Your task to perform on an android device: toggle pop-ups in chrome Image 0: 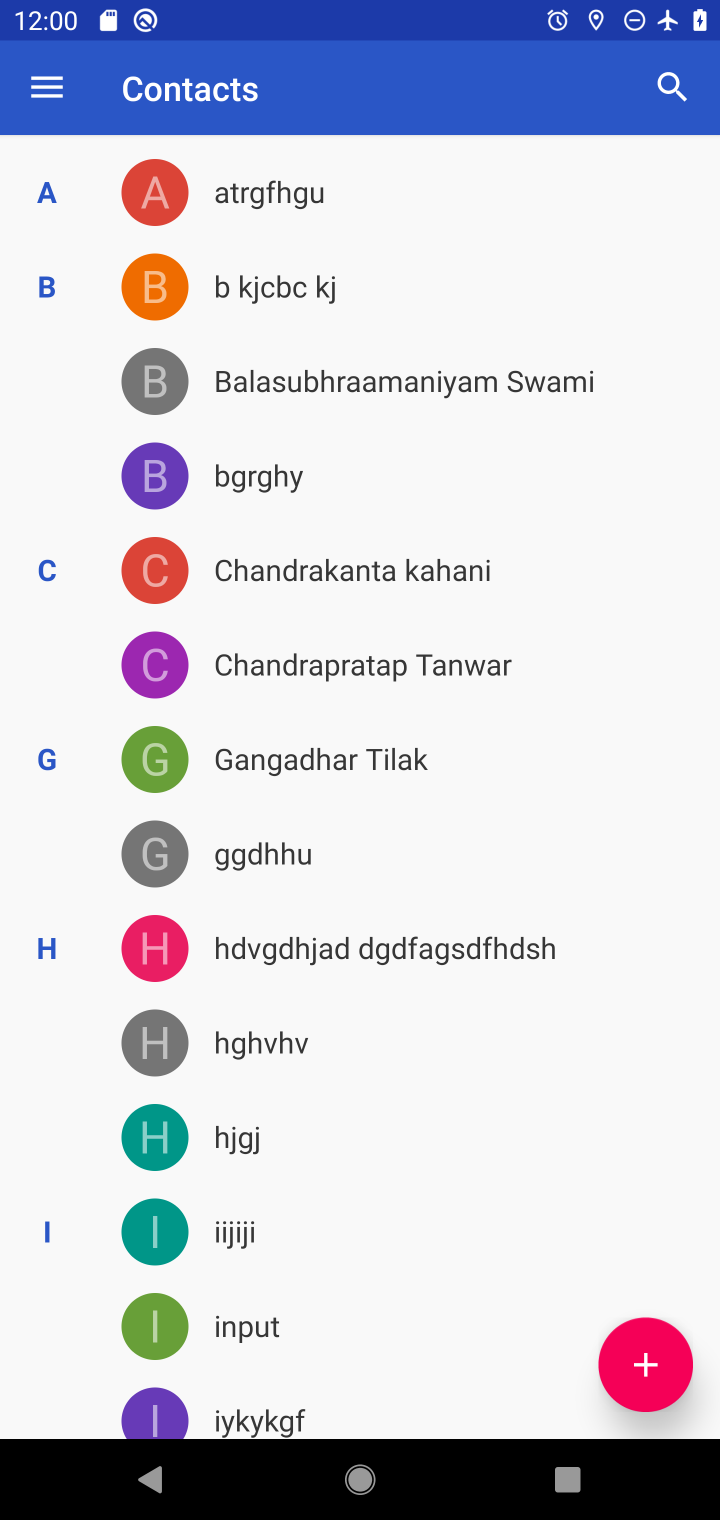
Step 0: press home button
Your task to perform on an android device: toggle pop-ups in chrome Image 1: 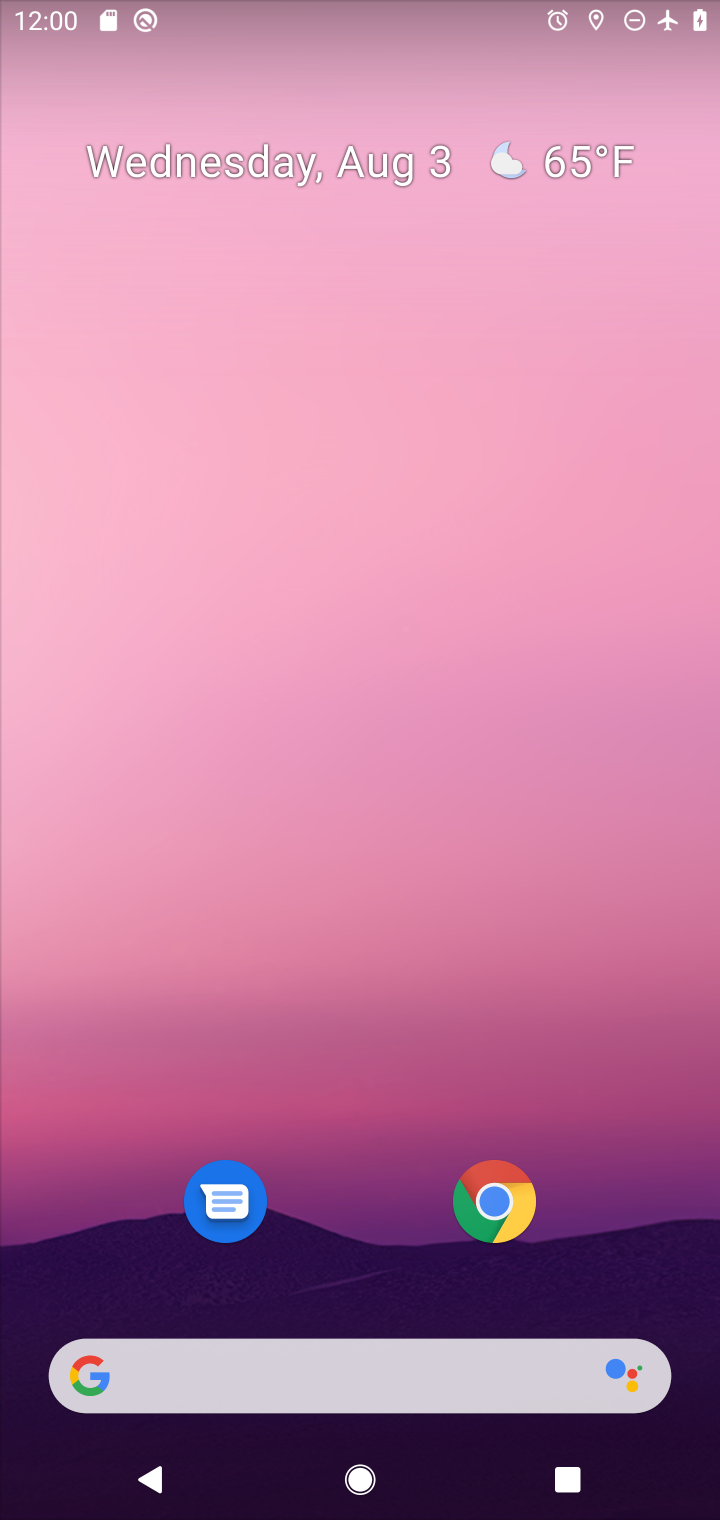
Step 1: drag from (358, 1368) to (223, 94)
Your task to perform on an android device: toggle pop-ups in chrome Image 2: 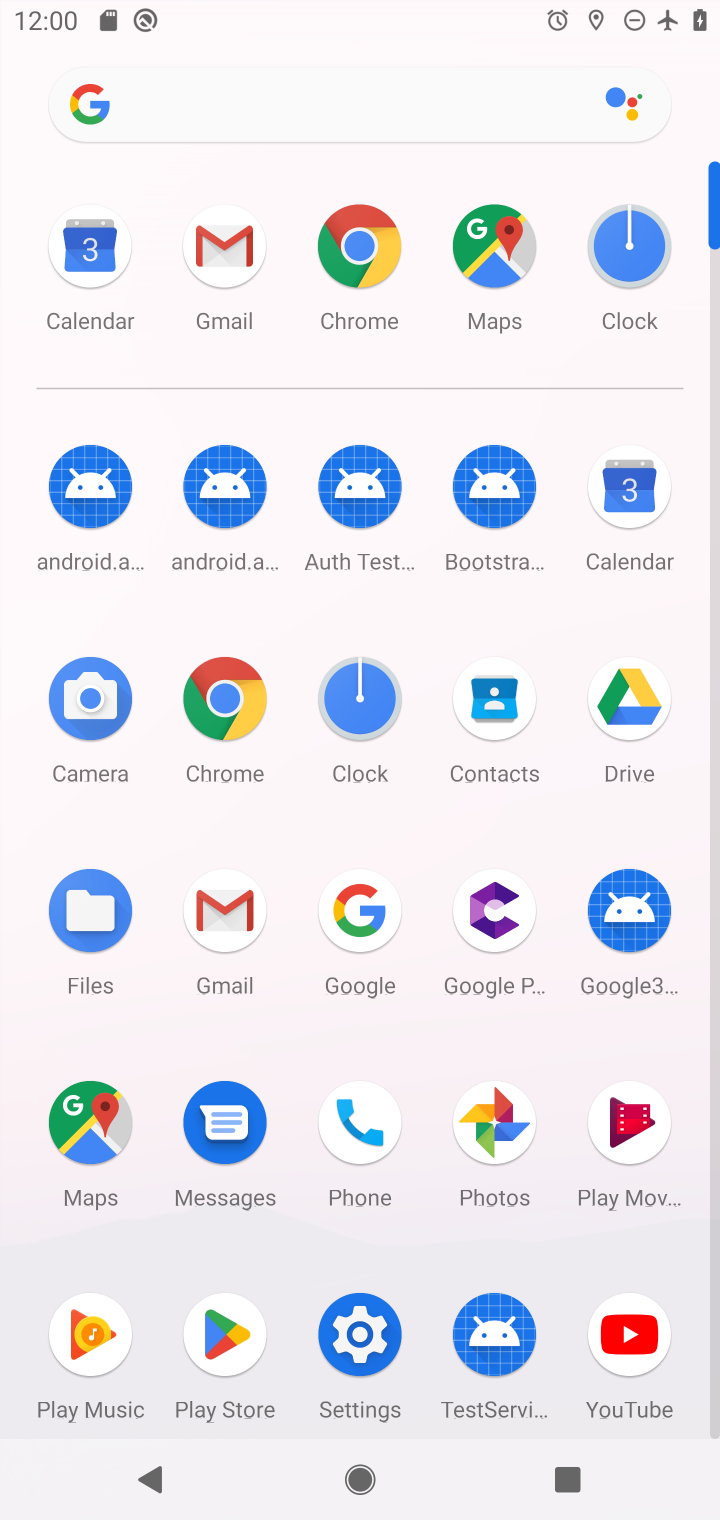
Step 2: click (241, 669)
Your task to perform on an android device: toggle pop-ups in chrome Image 3: 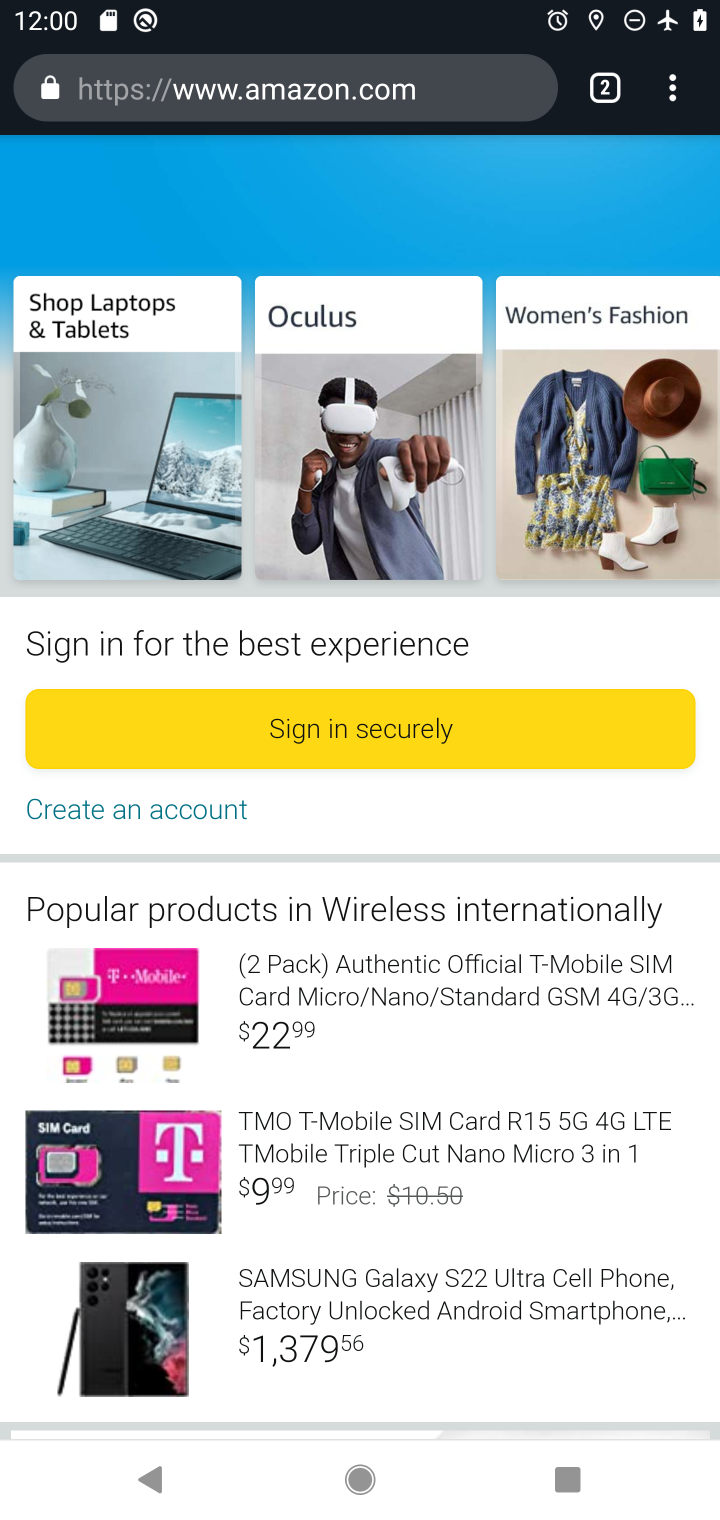
Step 3: click (663, 89)
Your task to perform on an android device: toggle pop-ups in chrome Image 4: 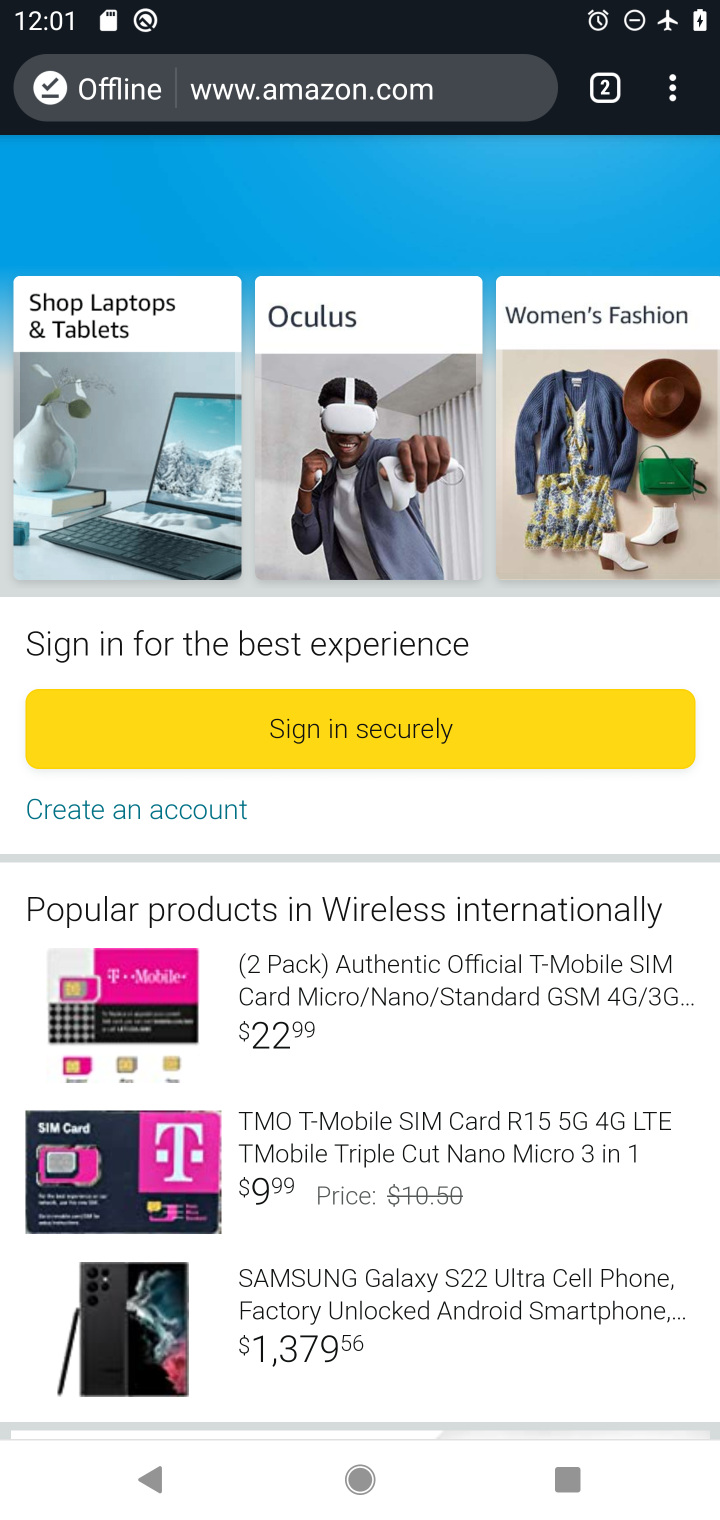
Step 4: drag from (674, 99) to (379, 972)
Your task to perform on an android device: toggle pop-ups in chrome Image 5: 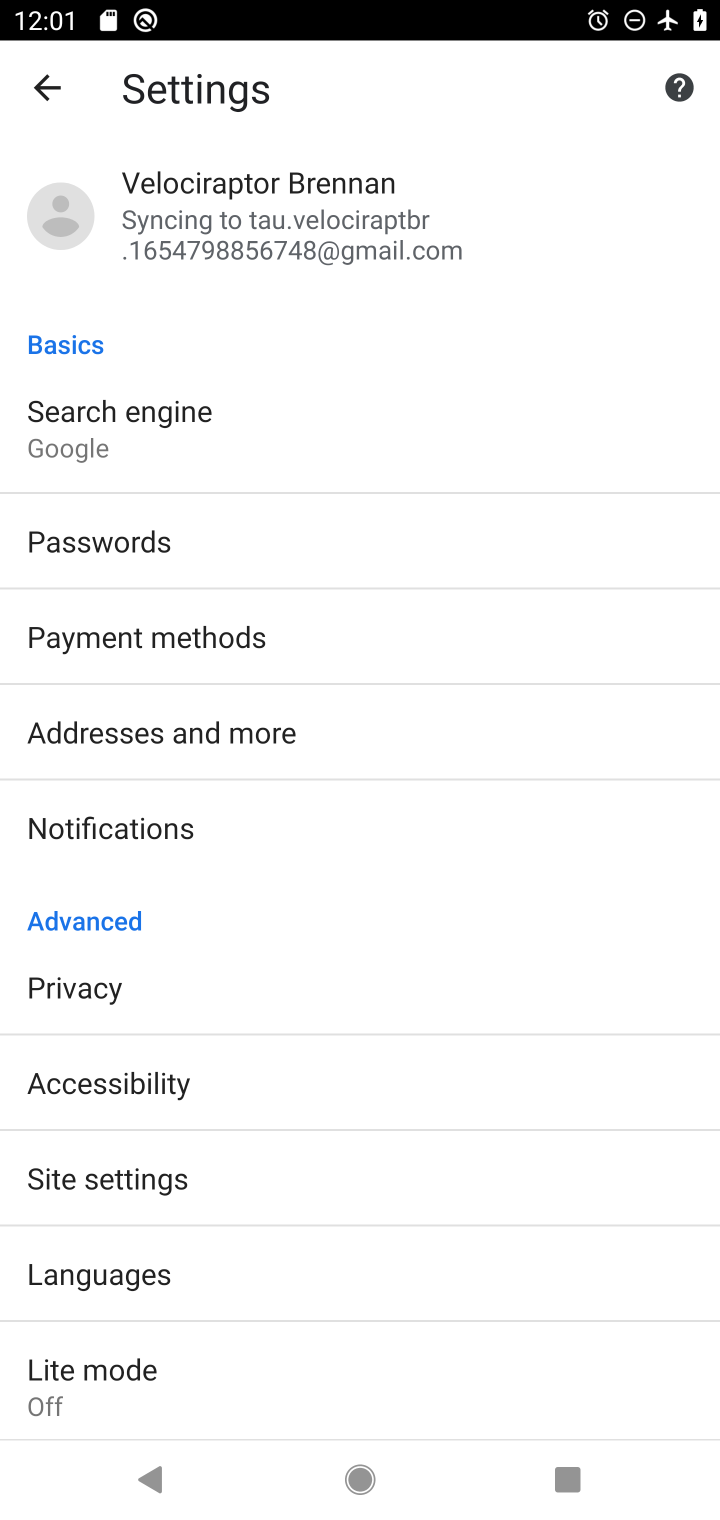
Step 5: click (174, 1193)
Your task to perform on an android device: toggle pop-ups in chrome Image 6: 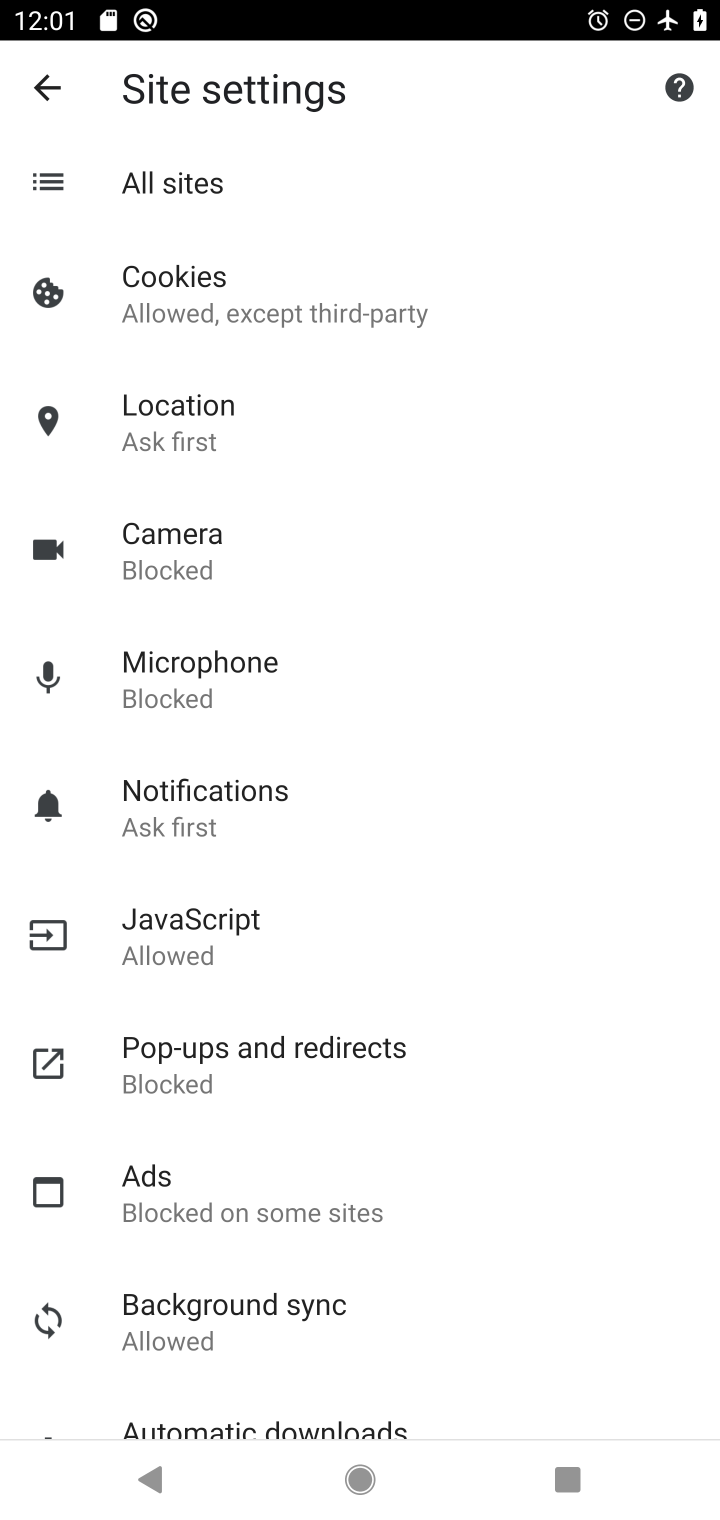
Step 6: click (274, 1057)
Your task to perform on an android device: toggle pop-ups in chrome Image 7: 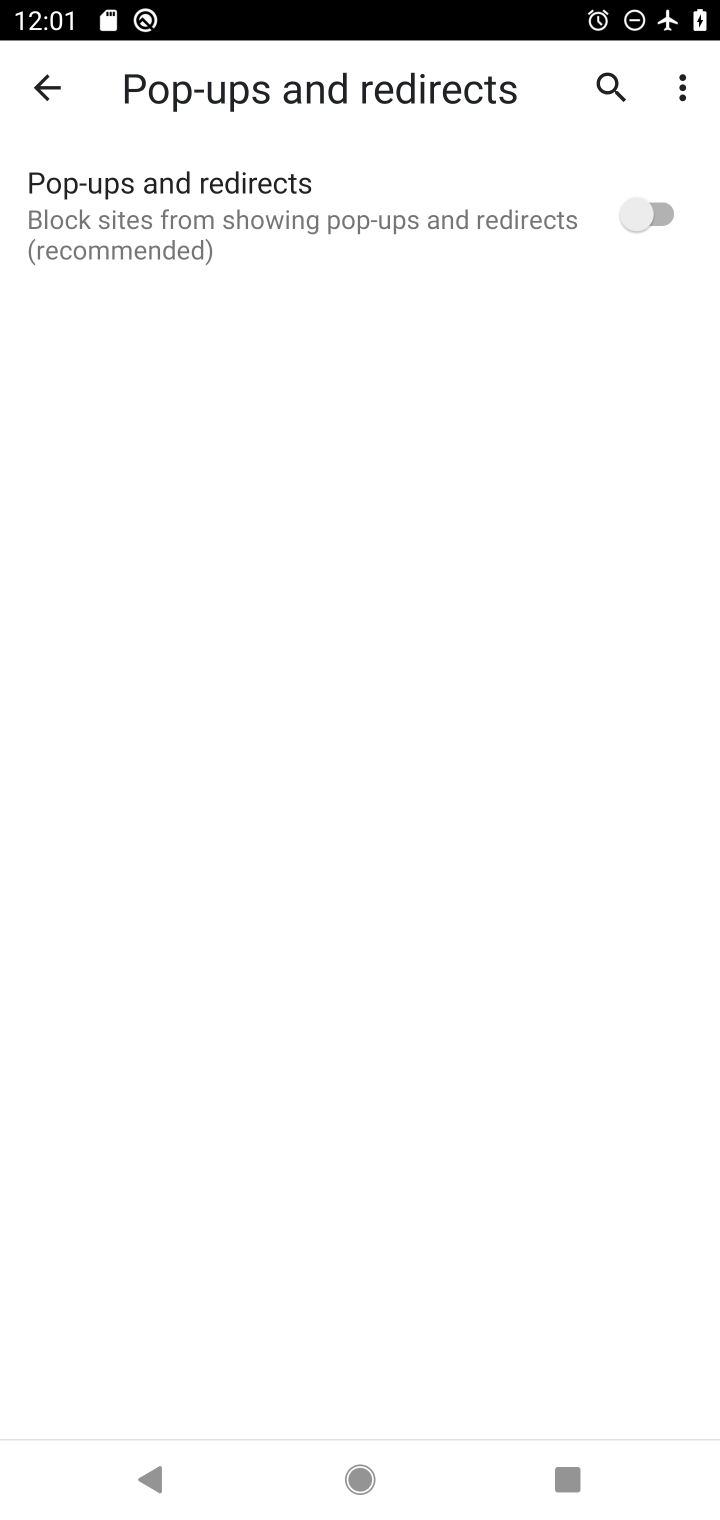
Step 7: click (642, 218)
Your task to perform on an android device: toggle pop-ups in chrome Image 8: 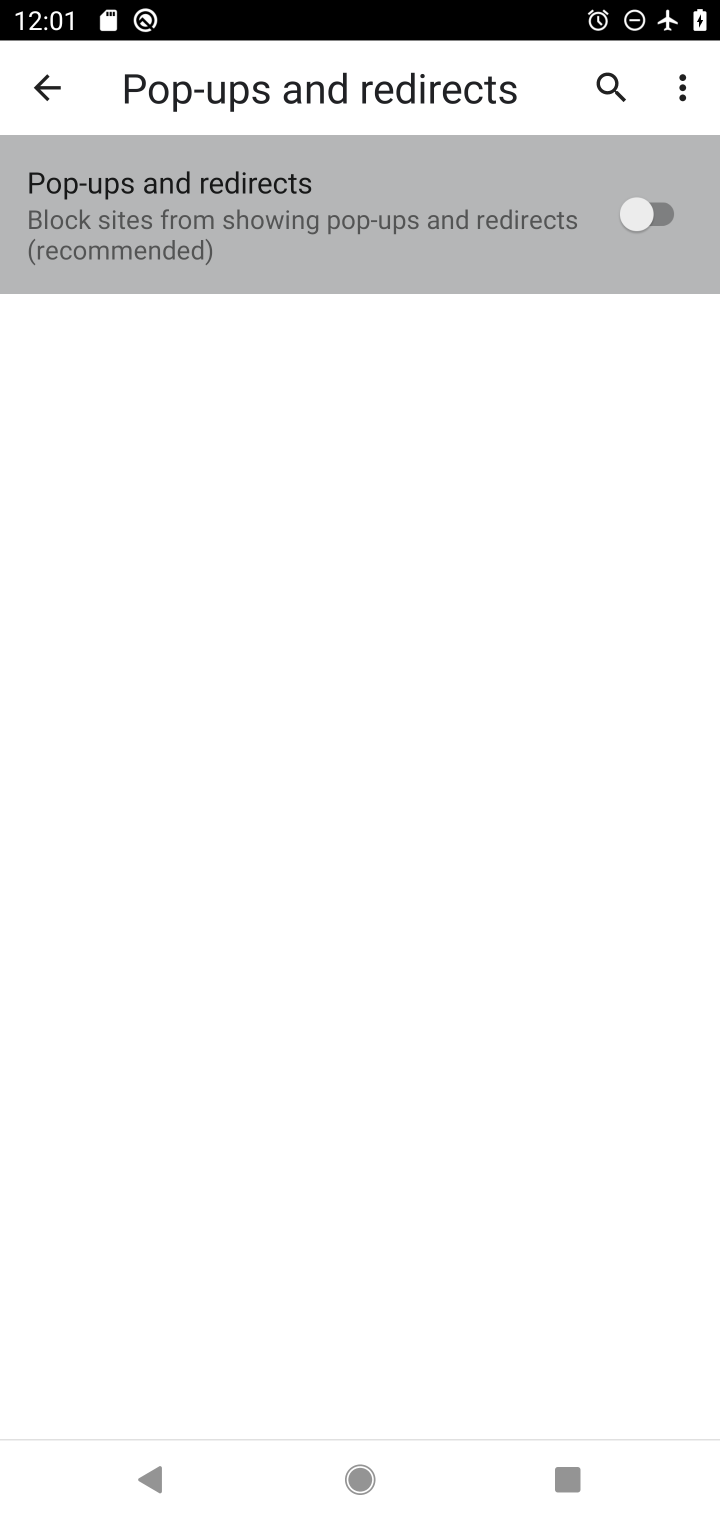
Step 8: task complete